Your task to perform on an android device: Open the calendar app, open the side menu, and click the "Day" option Image 0: 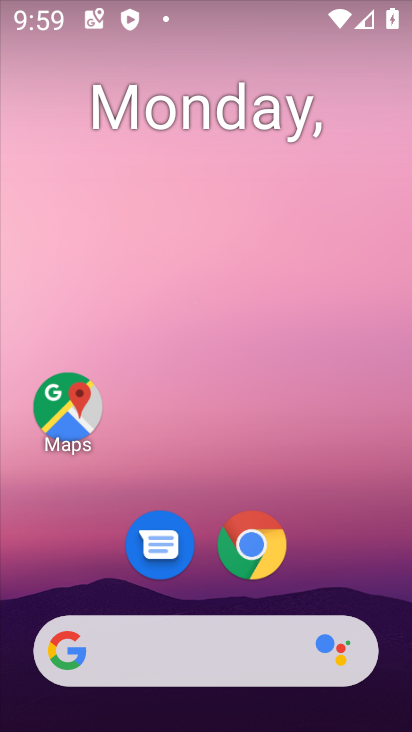
Step 0: drag from (24, 511) to (178, 209)
Your task to perform on an android device: Open the calendar app, open the side menu, and click the "Day" option Image 1: 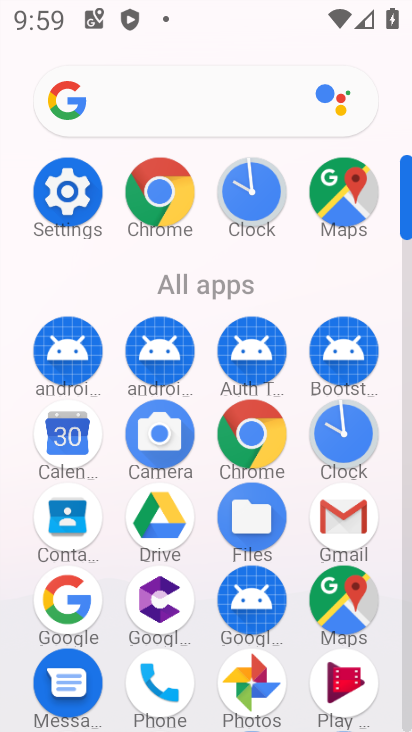
Step 1: click (80, 434)
Your task to perform on an android device: Open the calendar app, open the side menu, and click the "Day" option Image 2: 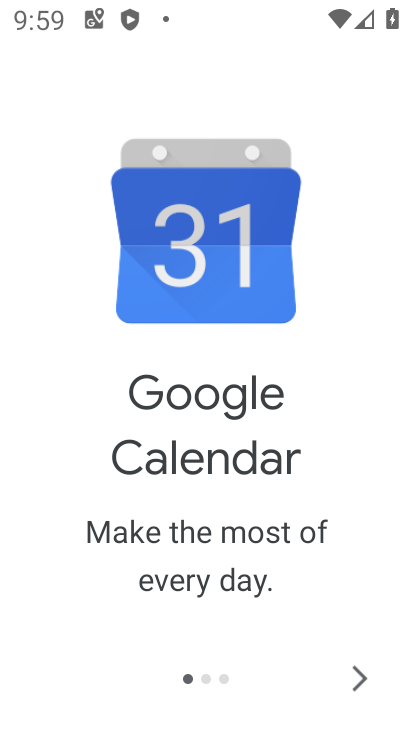
Step 2: click (356, 674)
Your task to perform on an android device: Open the calendar app, open the side menu, and click the "Day" option Image 3: 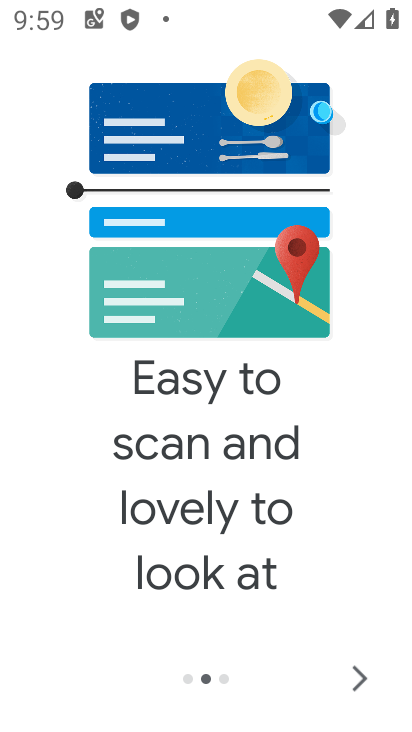
Step 3: click (357, 673)
Your task to perform on an android device: Open the calendar app, open the side menu, and click the "Day" option Image 4: 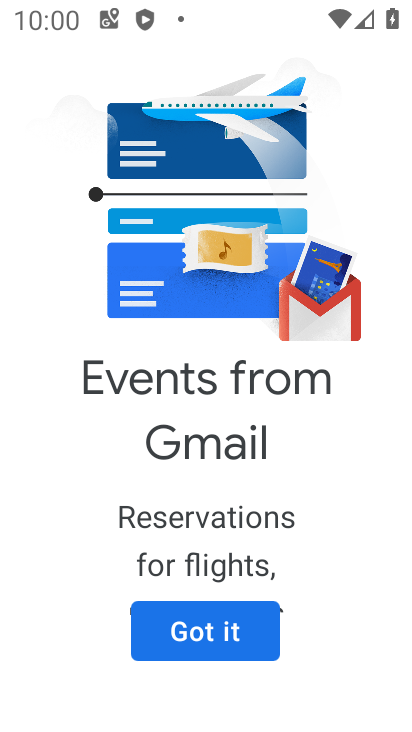
Step 4: click (169, 640)
Your task to perform on an android device: Open the calendar app, open the side menu, and click the "Day" option Image 5: 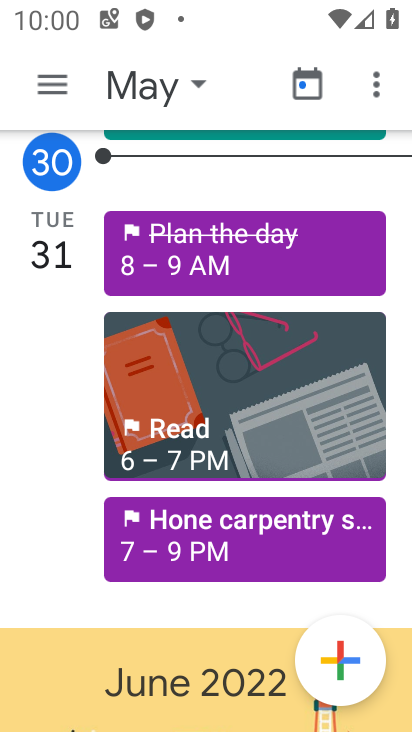
Step 5: click (57, 80)
Your task to perform on an android device: Open the calendar app, open the side menu, and click the "Day" option Image 6: 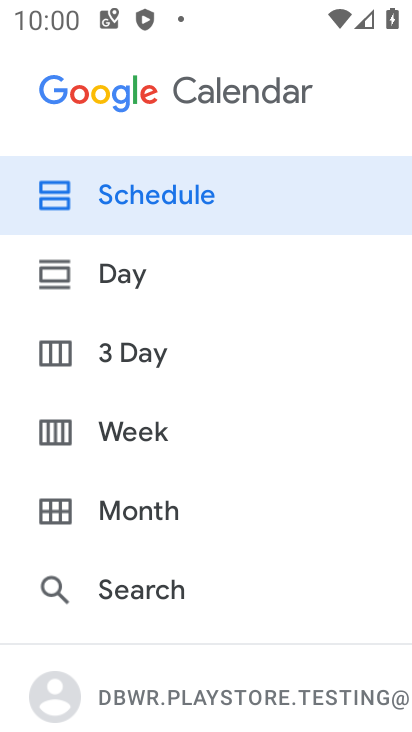
Step 6: click (157, 267)
Your task to perform on an android device: Open the calendar app, open the side menu, and click the "Day" option Image 7: 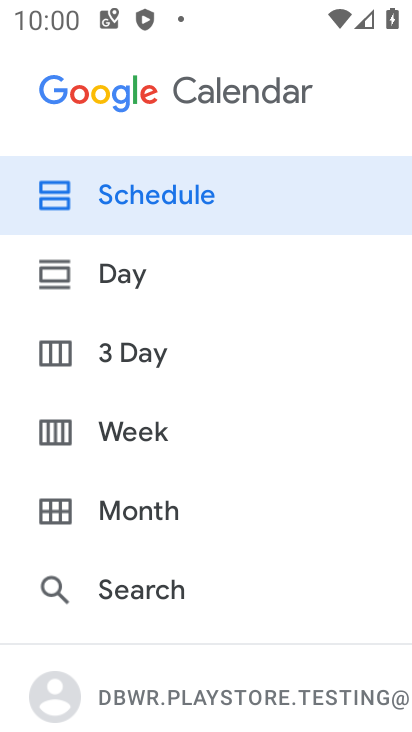
Step 7: click (110, 290)
Your task to perform on an android device: Open the calendar app, open the side menu, and click the "Day" option Image 8: 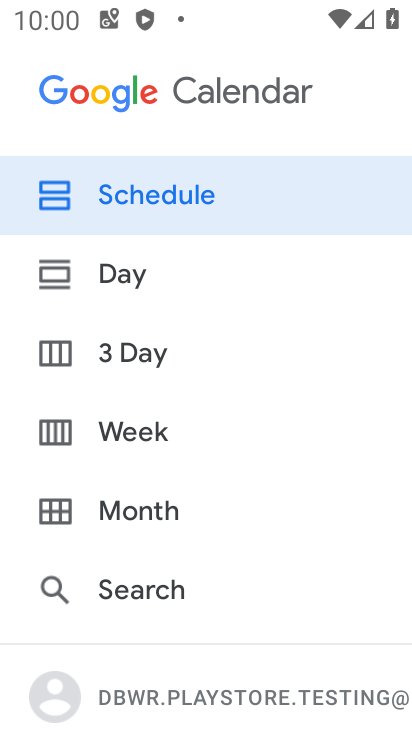
Step 8: click (125, 282)
Your task to perform on an android device: Open the calendar app, open the side menu, and click the "Day" option Image 9: 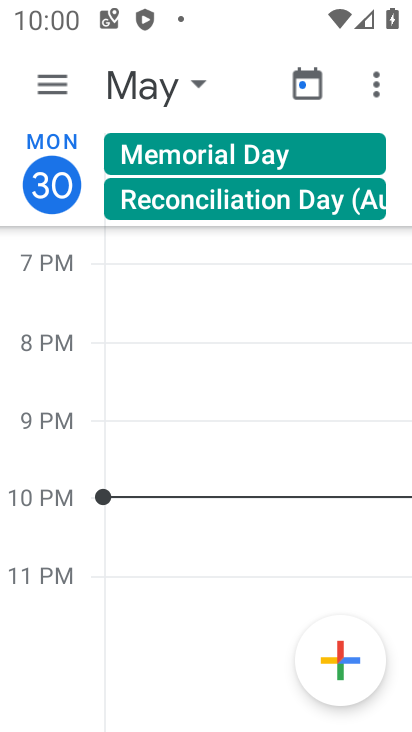
Step 9: task complete